Your task to perform on an android device: open a bookmark in the chrome app Image 0: 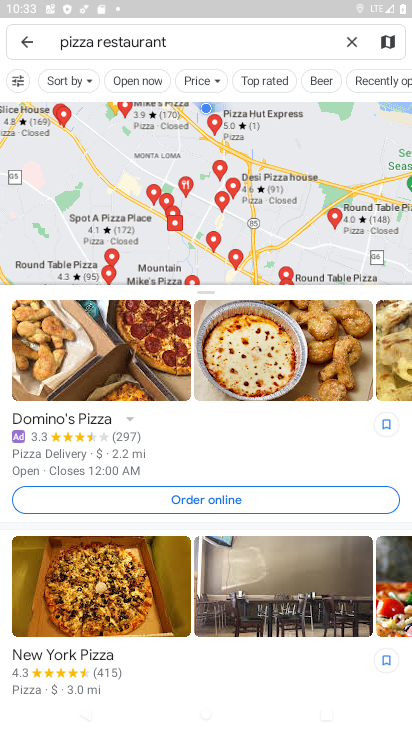
Step 0: press home button
Your task to perform on an android device: open a bookmark in the chrome app Image 1: 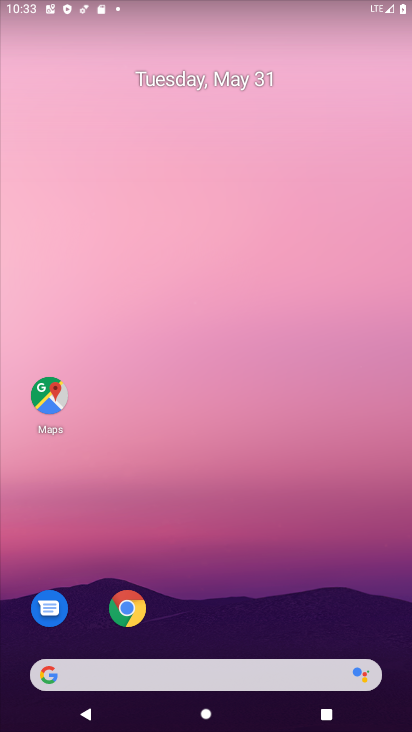
Step 1: click (137, 595)
Your task to perform on an android device: open a bookmark in the chrome app Image 2: 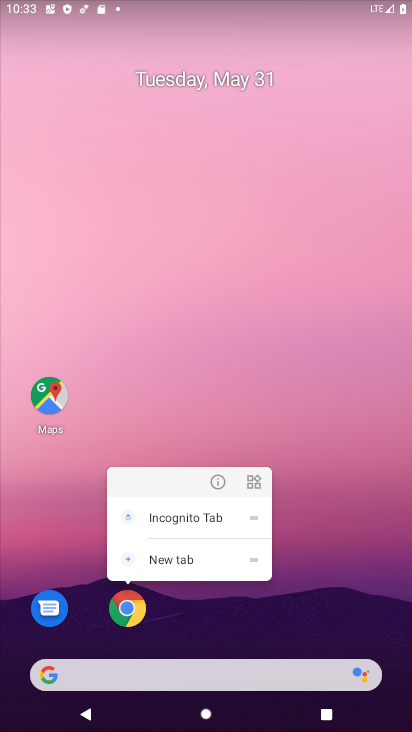
Step 2: click (122, 613)
Your task to perform on an android device: open a bookmark in the chrome app Image 3: 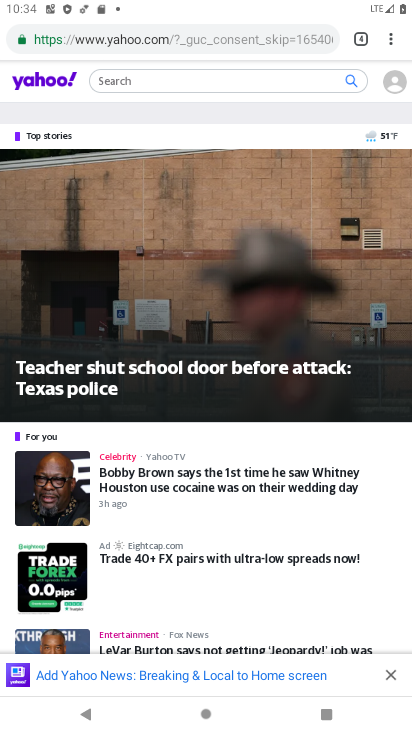
Step 3: click (388, 38)
Your task to perform on an android device: open a bookmark in the chrome app Image 4: 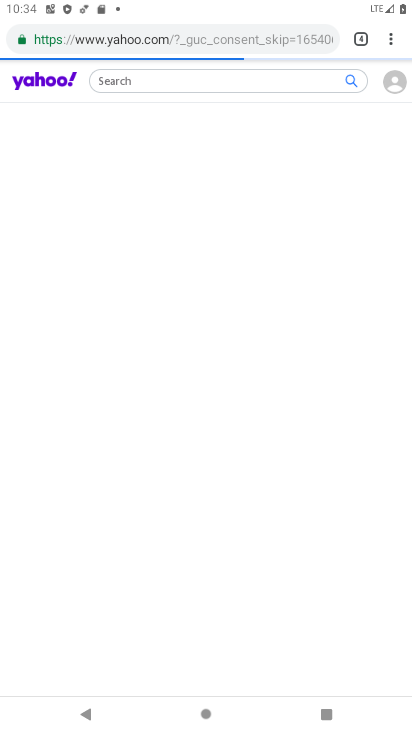
Step 4: task complete